Your task to perform on an android device: check battery use Image 0: 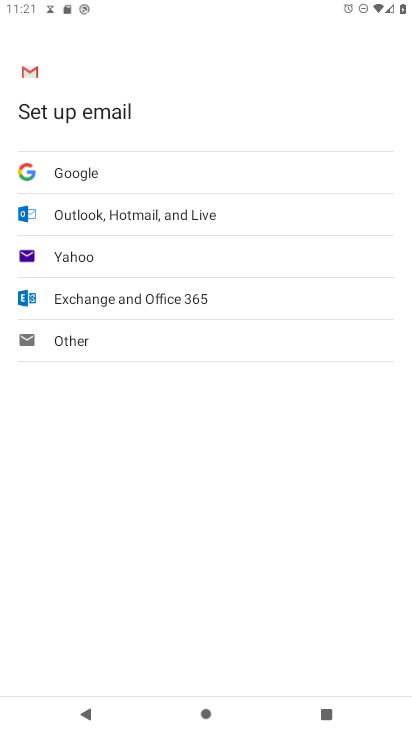
Step 0: press home button
Your task to perform on an android device: check battery use Image 1: 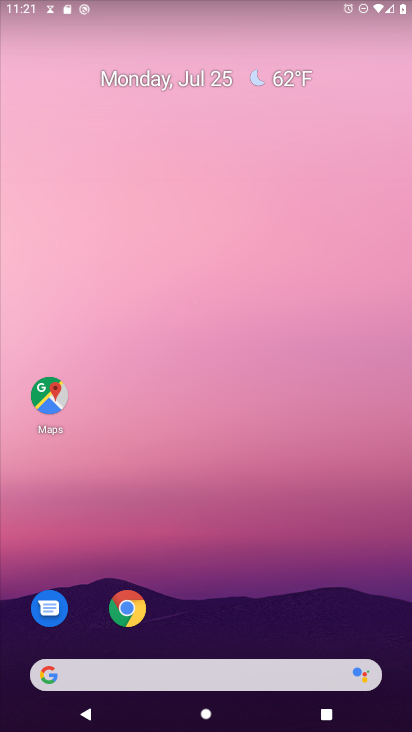
Step 1: drag from (153, 669) to (264, 167)
Your task to perform on an android device: check battery use Image 2: 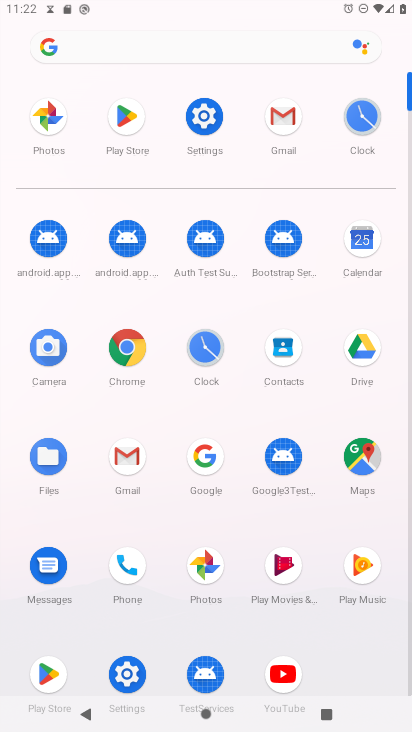
Step 2: click (203, 117)
Your task to perform on an android device: check battery use Image 3: 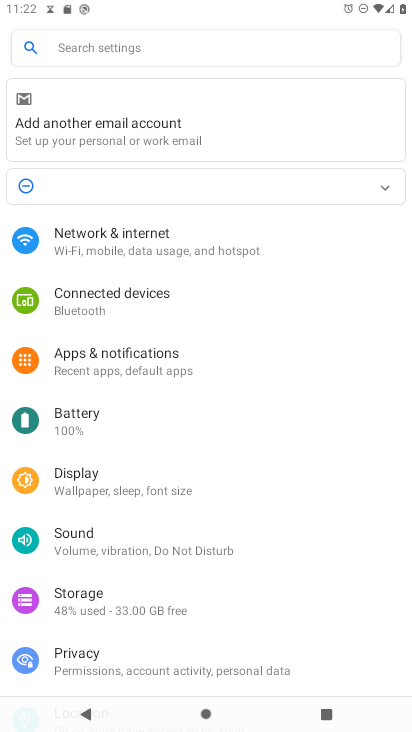
Step 3: click (84, 419)
Your task to perform on an android device: check battery use Image 4: 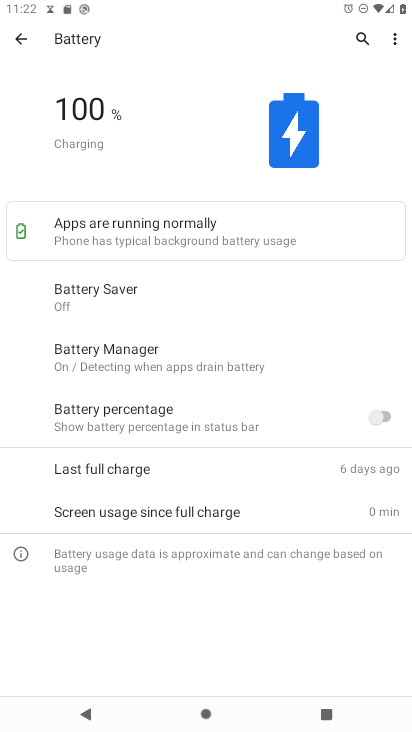
Step 4: click (393, 38)
Your task to perform on an android device: check battery use Image 5: 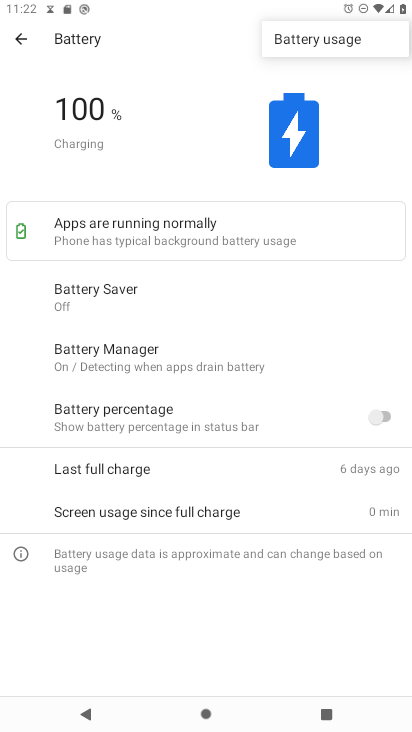
Step 5: click (321, 43)
Your task to perform on an android device: check battery use Image 6: 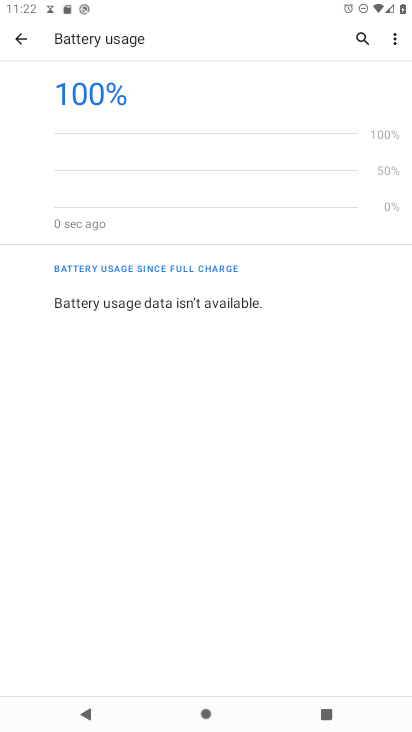
Step 6: task complete